Your task to perform on an android device: When is my next appointment? Image 0: 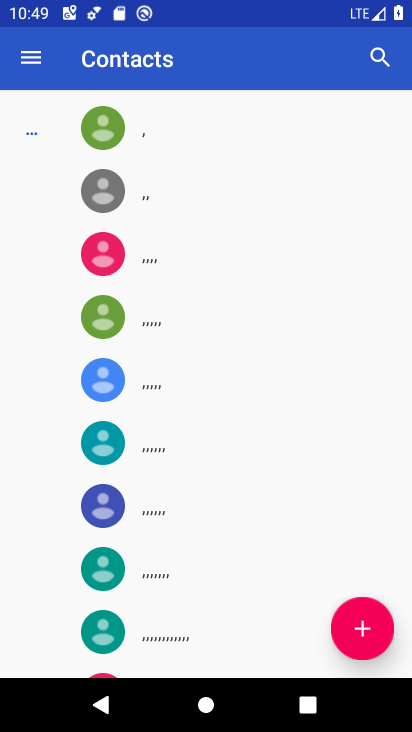
Step 0: press home button
Your task to perform on an android device: When is my next appointment? Image 1: 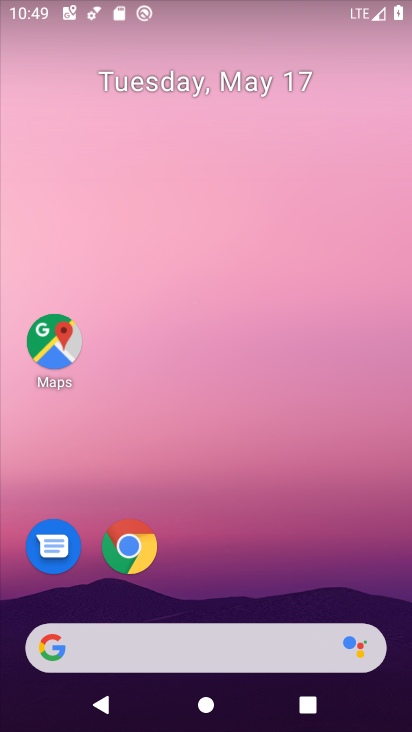
Step 1: drag from (218, 588) to (239, 42)
Your task to perform on an android device: When is my next appointment? Image 2: 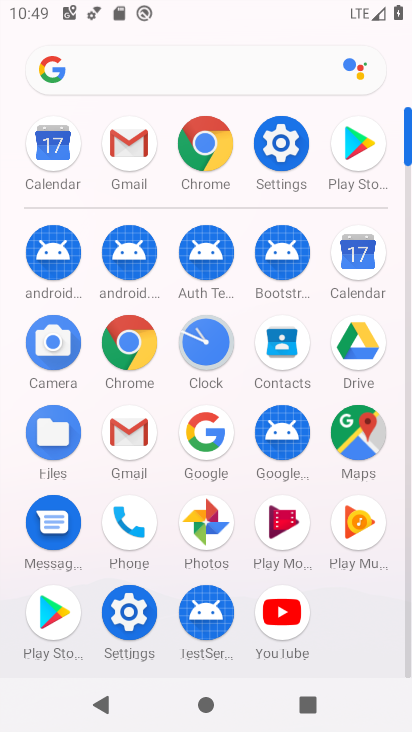
Step 2: click (363, 268)
Your task to perform on an android device: When is my next appointment? Image 3: 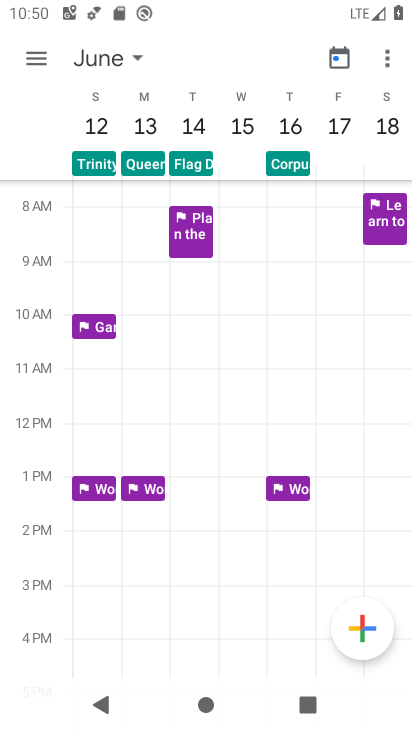
Step 3: drag from (100, 122) to (361, 101)
Your task to perform on an android device: When is my next appointment? Image 4: 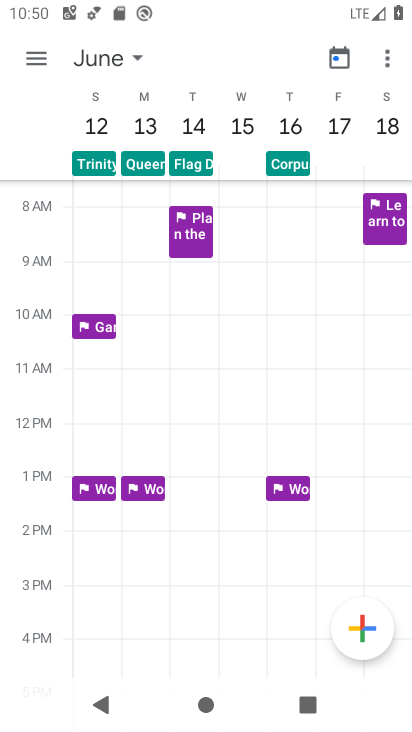
Step 4: drag from (104, 135) to (355, 116)
Your task to perform on an android device: When is my next appointment? Image 5: 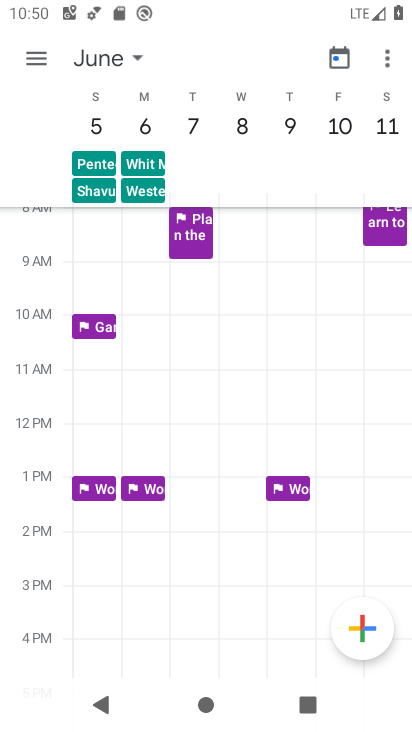
Step 5: drag from (139, 163) to (354, 106)
Your task to perform on an android device: When is my next appointment? Image 6: 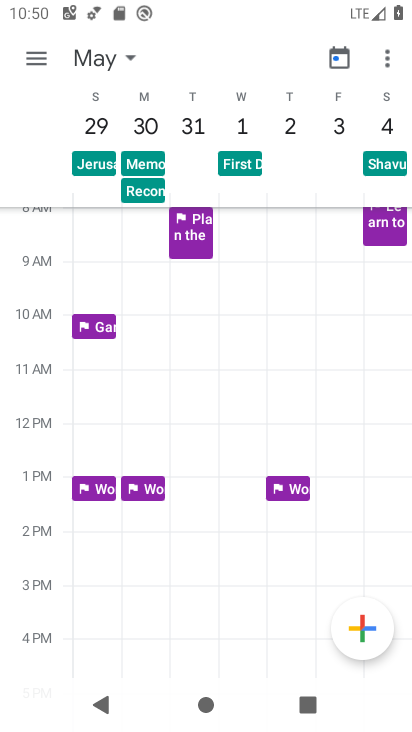
Step 6: drag from (166, 161) to (410, 110)
Your task to perform on an android device: When is my next appointment? Image 7: 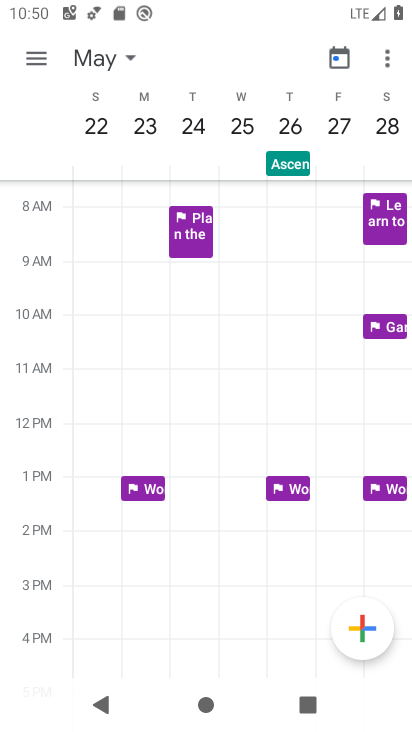
Step 7: drag from (134, 169) to (399, 136)
Your task to perform on an android device: When is my next appointment? Image 8: 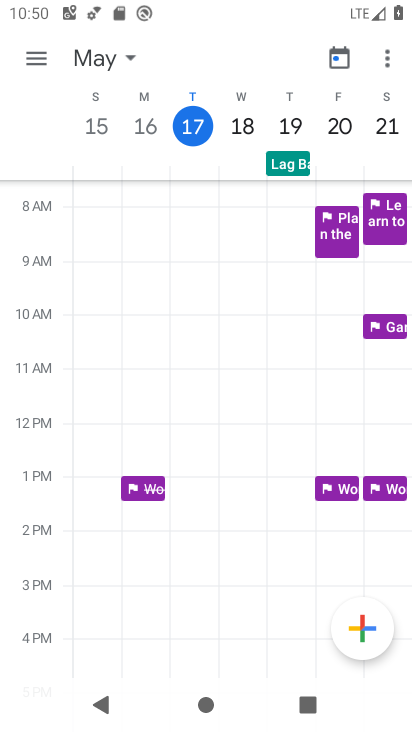
Step 8: click (31, 51)
Your task to perform on an android device: When is my next appointment? Image 9: 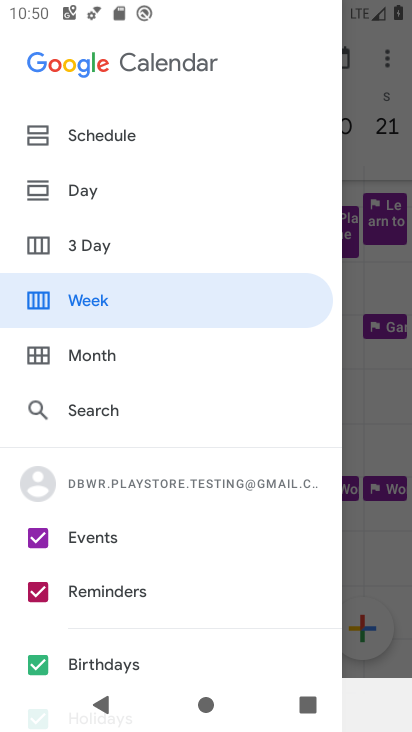
Step 9: click (110, 134)
Your task to perform on an android device: When is my next appointment? Image 10: 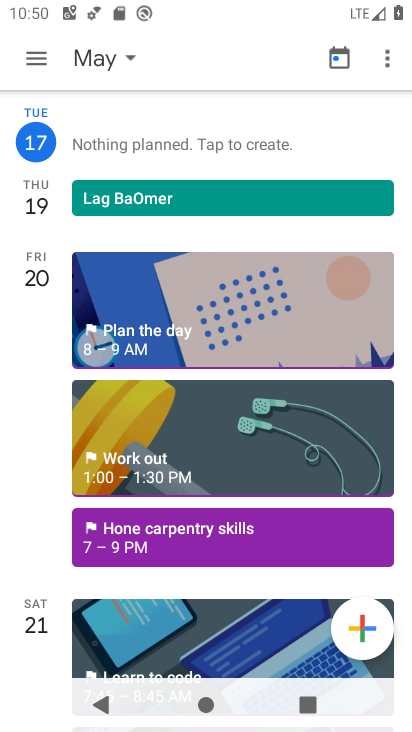
Step 10: task complete